Your task to perform on an android device: Add "lg ultragear" to the cart on amazon.com Image 0: 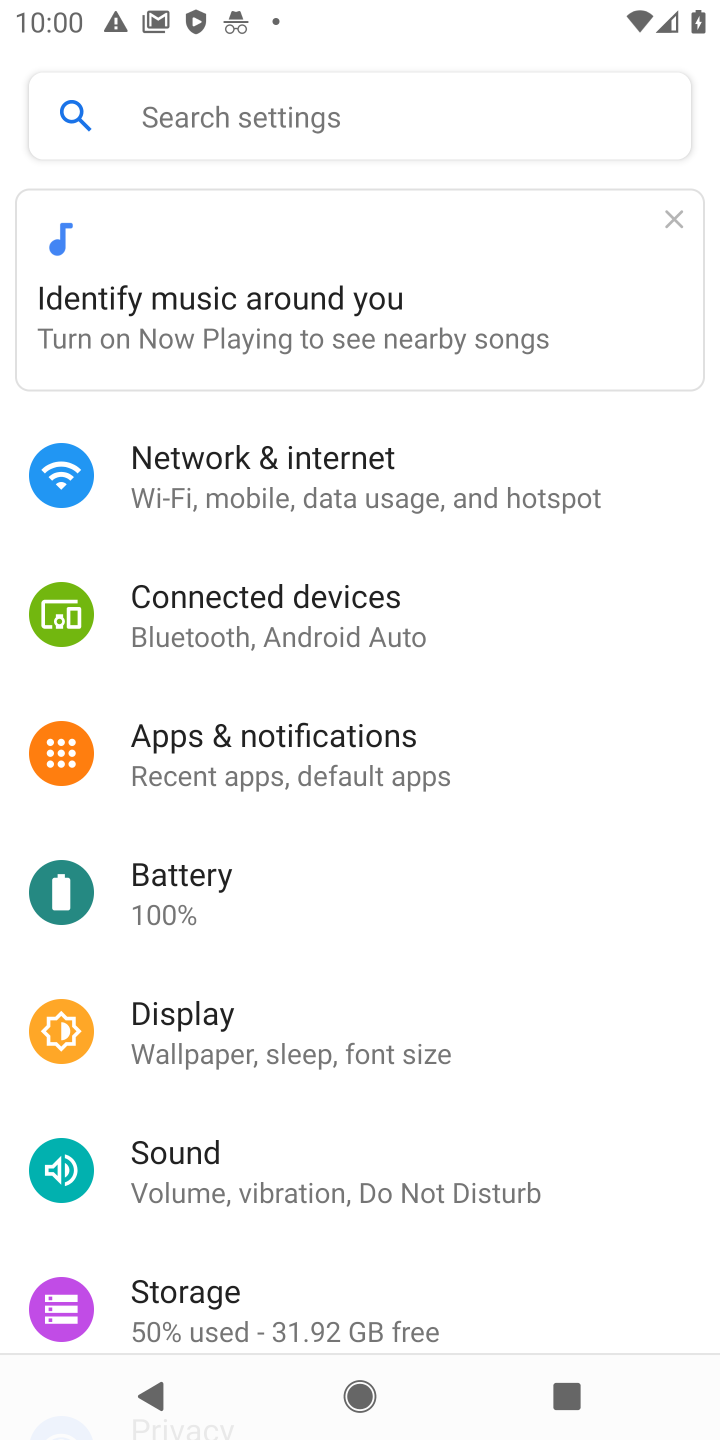
Step 0: press home button
Your task to perform on an android device: Add "lg ultragear" to the cart on amazon.com Image 1: 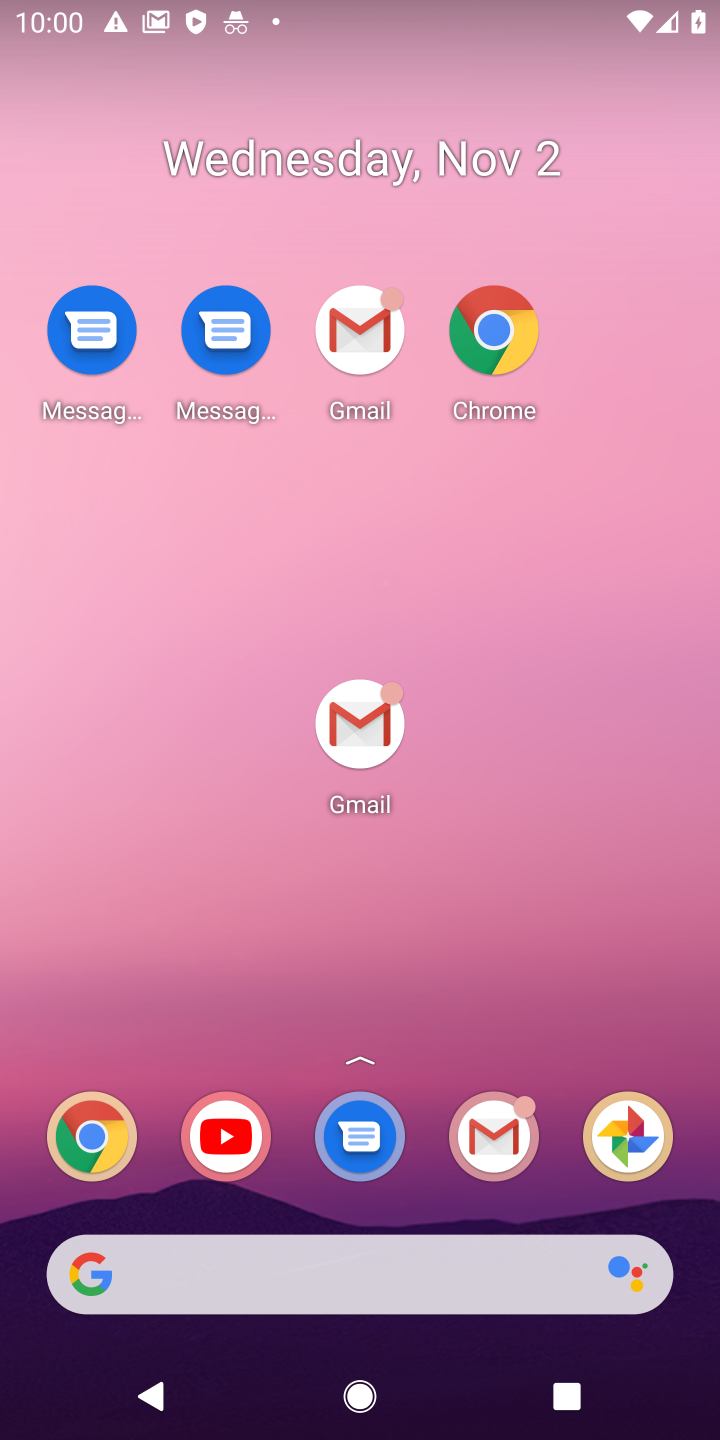
Step 1: drag from (361, 752) to (387, 381)
Your task to perform on an android device: Add "lg ultragear" to the cart on amazon.com Image 2: 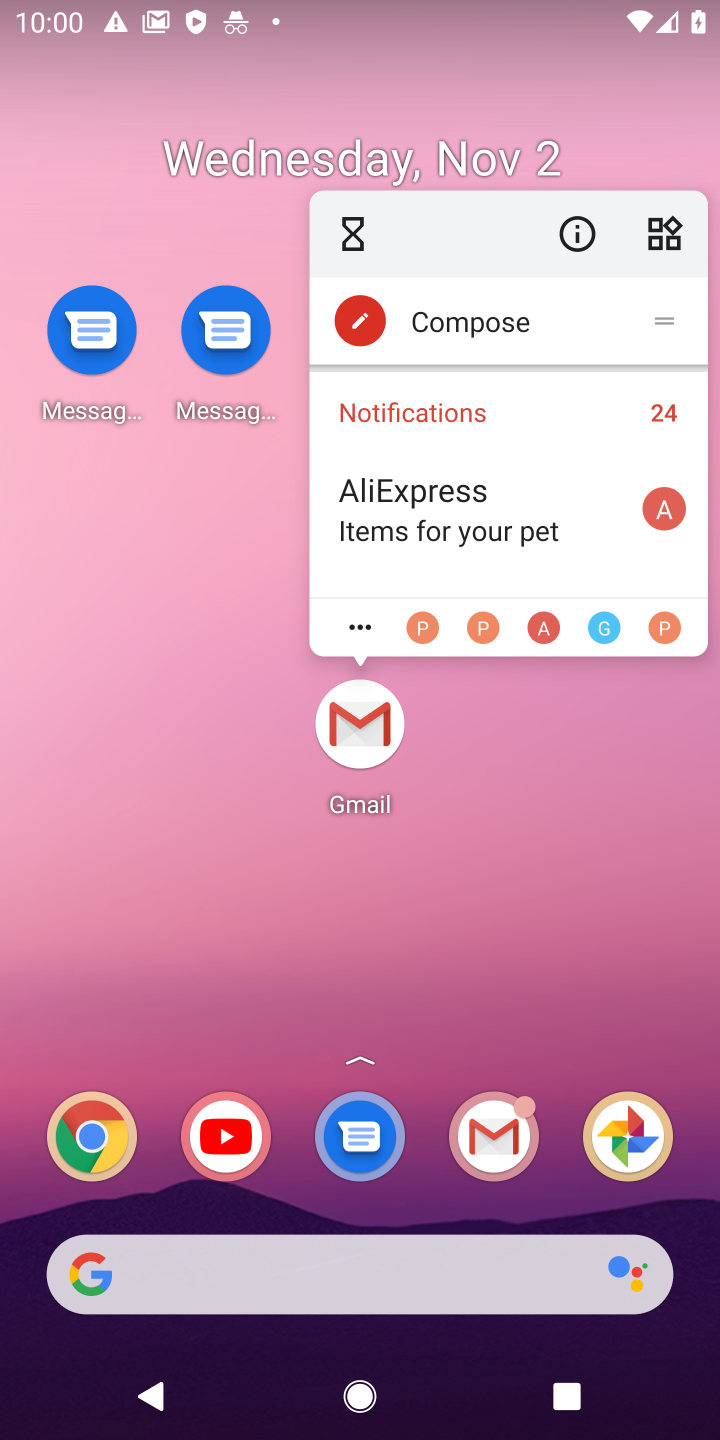
Step 2: click (82, 640)
Your task to perform on an android device: Add "lg ultragear" to the cart on amazon.com Image 3: 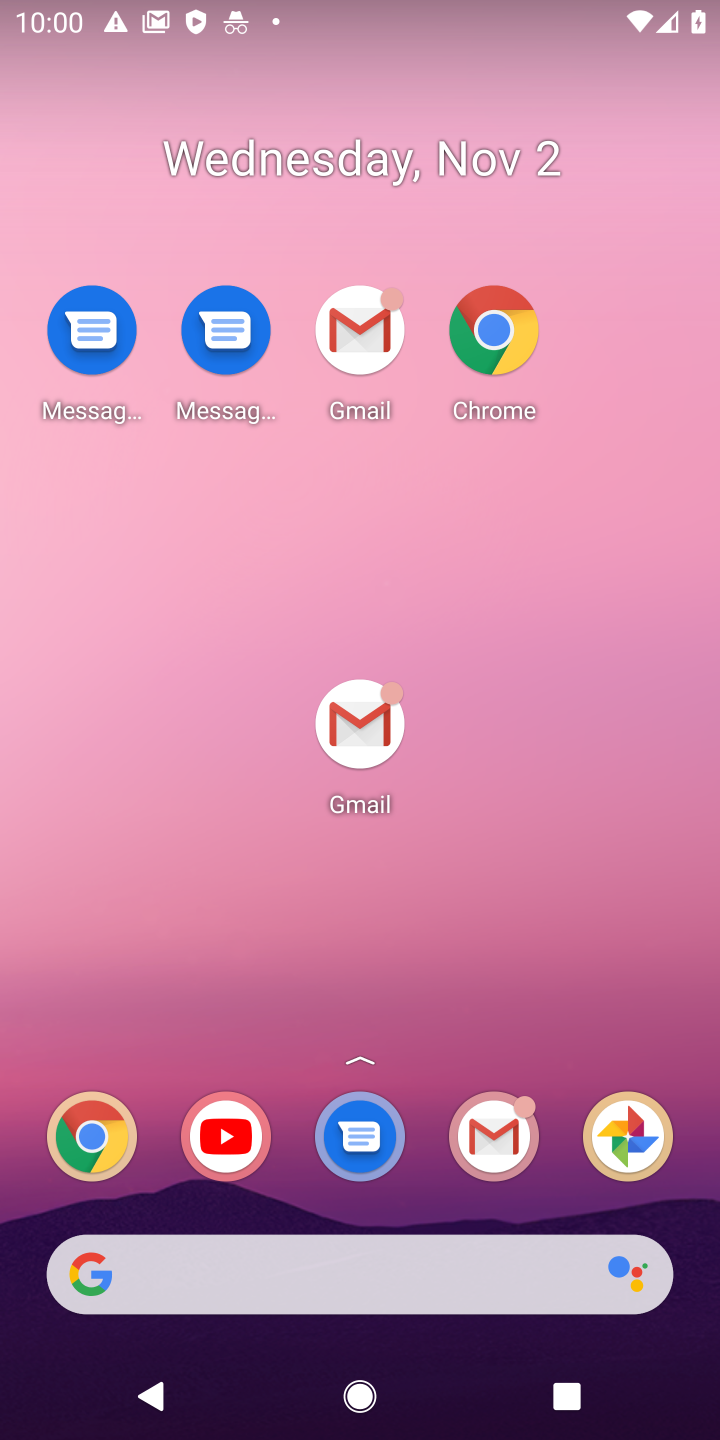
Step 3: drag from (420, 1329) to (397, 790)
Your task to perform on an android device: Add "lg ultragear" to the cart on amazon.com Image 4: 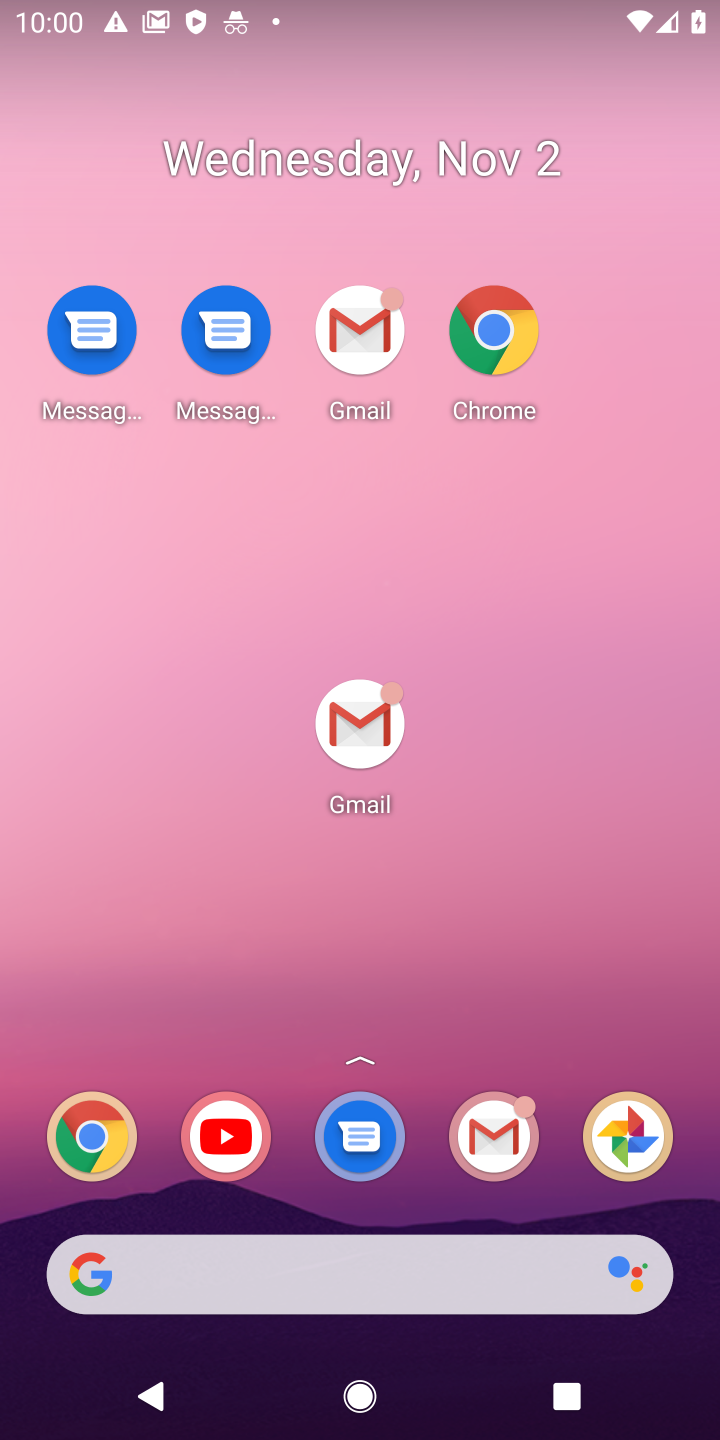
Step 4: drag from (443, 1074) to (420, 243)
Your task to perform on an android device: Add "lg ultragear" to the cart on amazon.com Image 5: 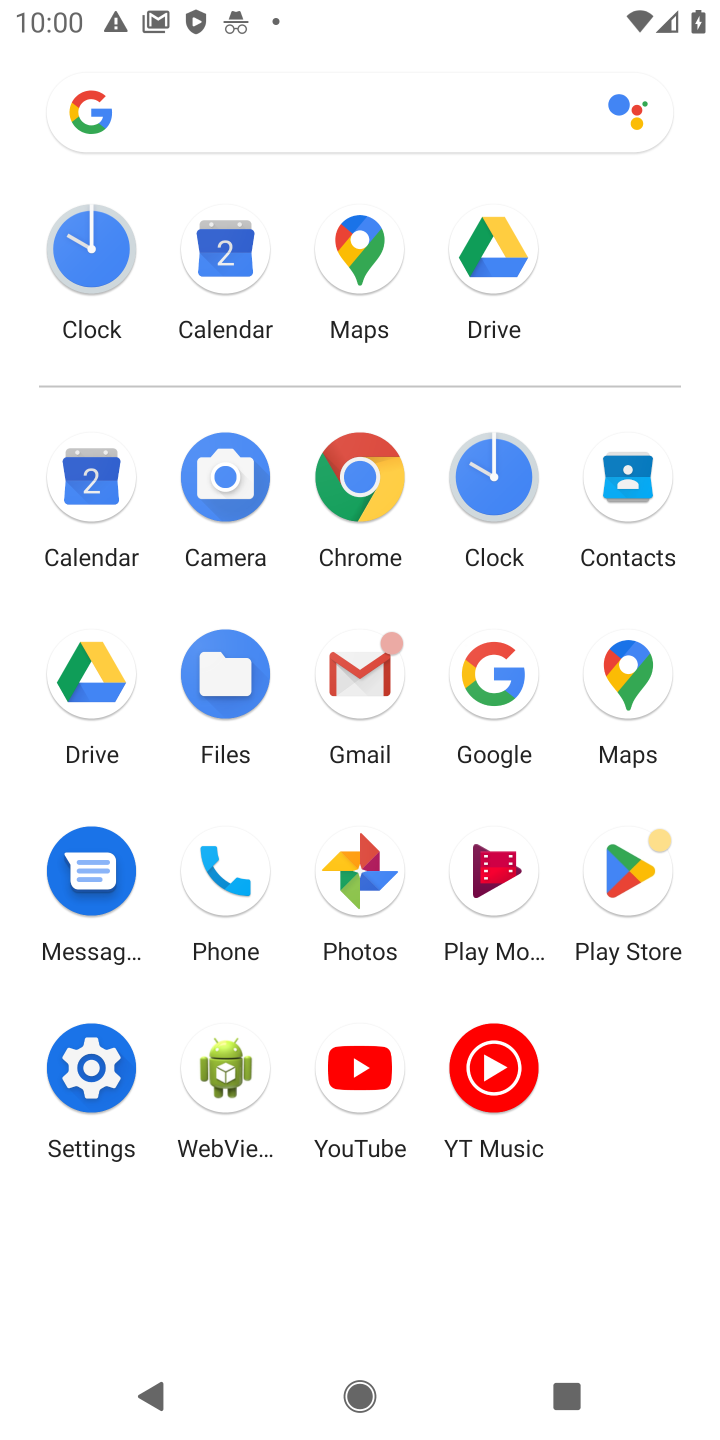
Step 5: click (481, 665)
Your task to perform on an android device: Add "lg ultragear" to the cart on amazon.com Image 6: 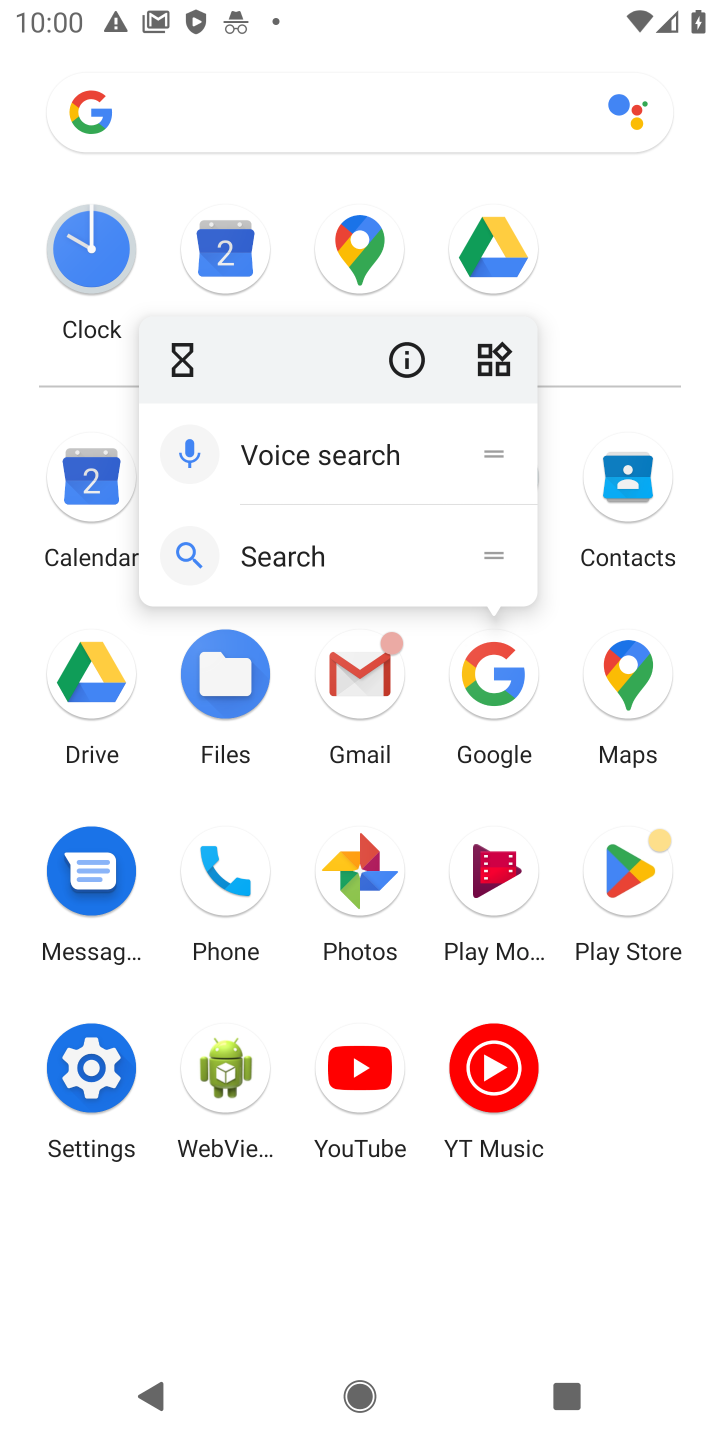
Step 6: click (481, 665)
Your task to perform on an android device: Add "lg ultragear" to the cart on amazon.com Image 7: 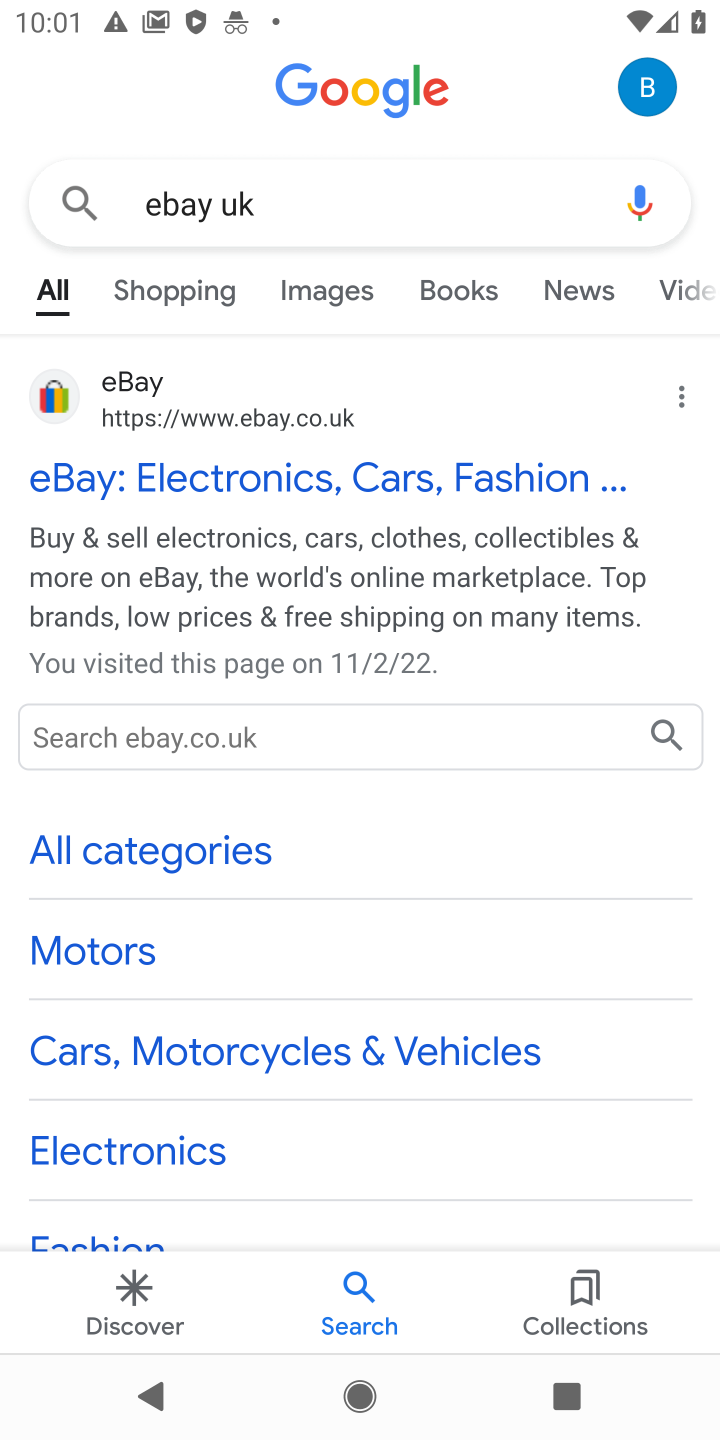
Step 7: click (304, 214)
Your task to perform on an android device: Add "lg ultragear" to the cart on amazon.com Image 8: 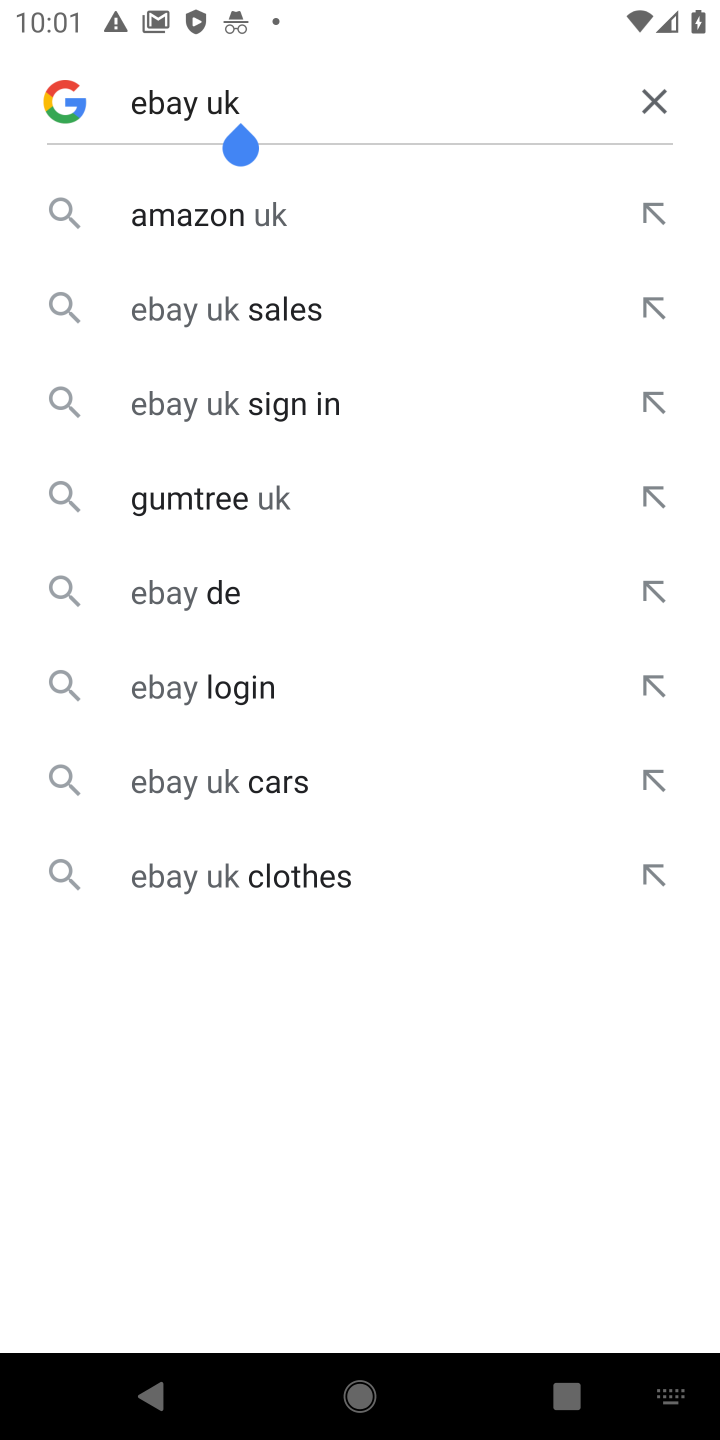
Step 8: click (664, 89)
Your task to perform on an android device: Add "lg ultragear" to the cart on amazon.com Image 9: 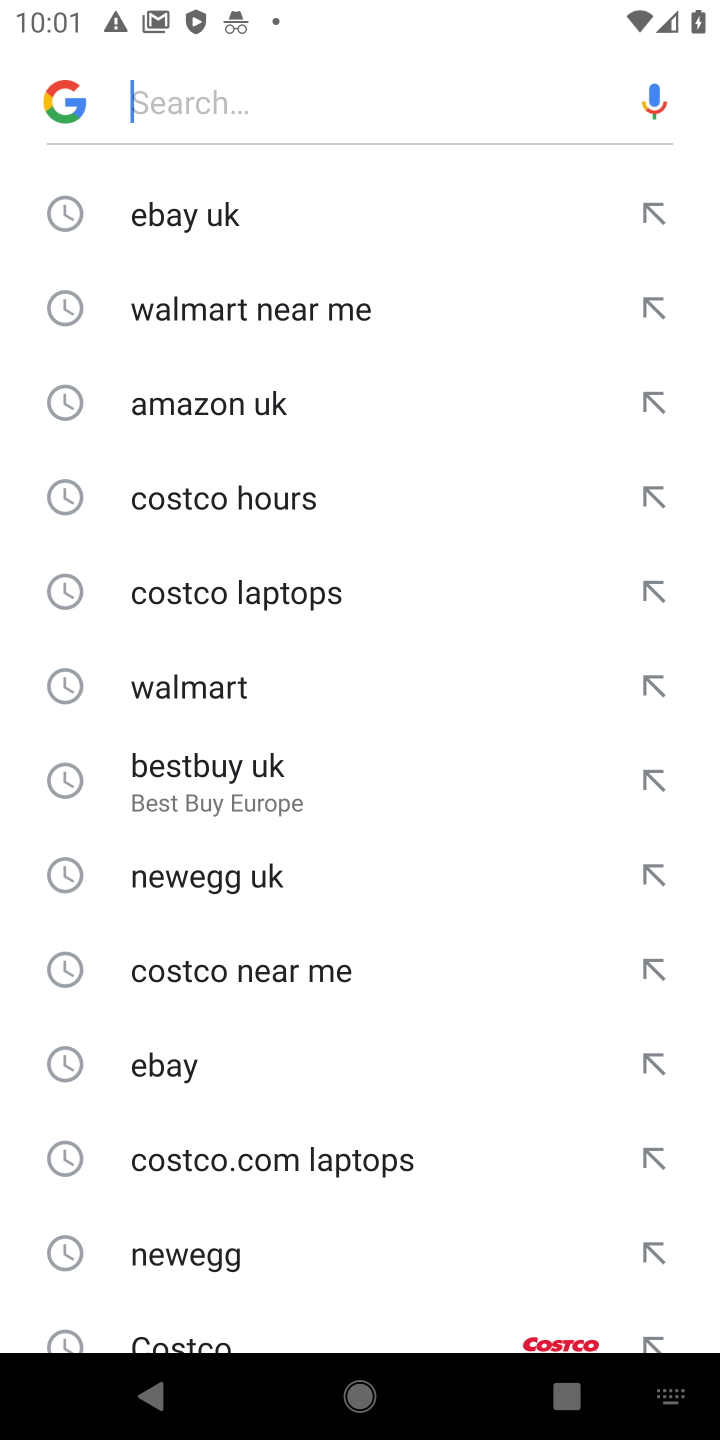
Step 9: click (397, 76)
Your task to perform on an android device: Add "lg ultragear" to the cart on amazon.com Image 10: 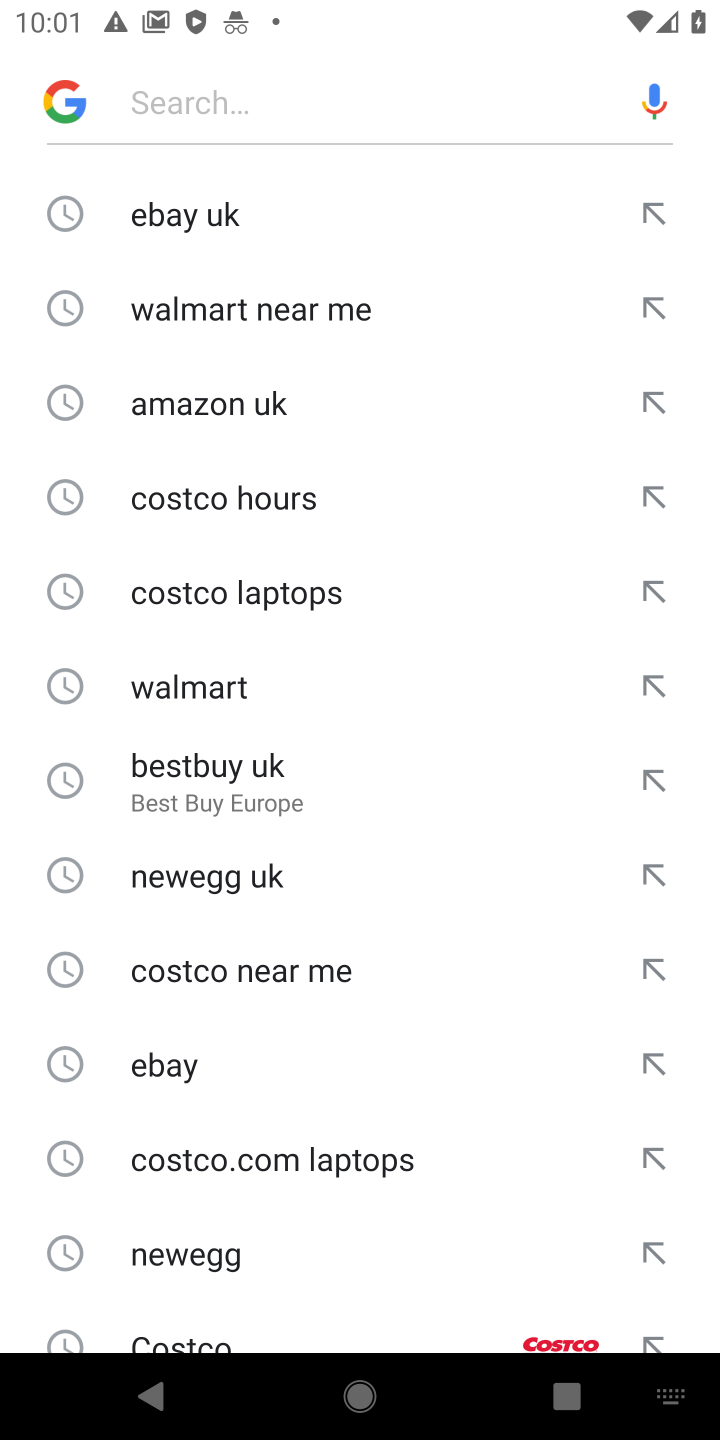
Step 10: type "amazon "
Your task to perform on an android device: Add "lg ultragear" to the cart on amazon.com Image 11: 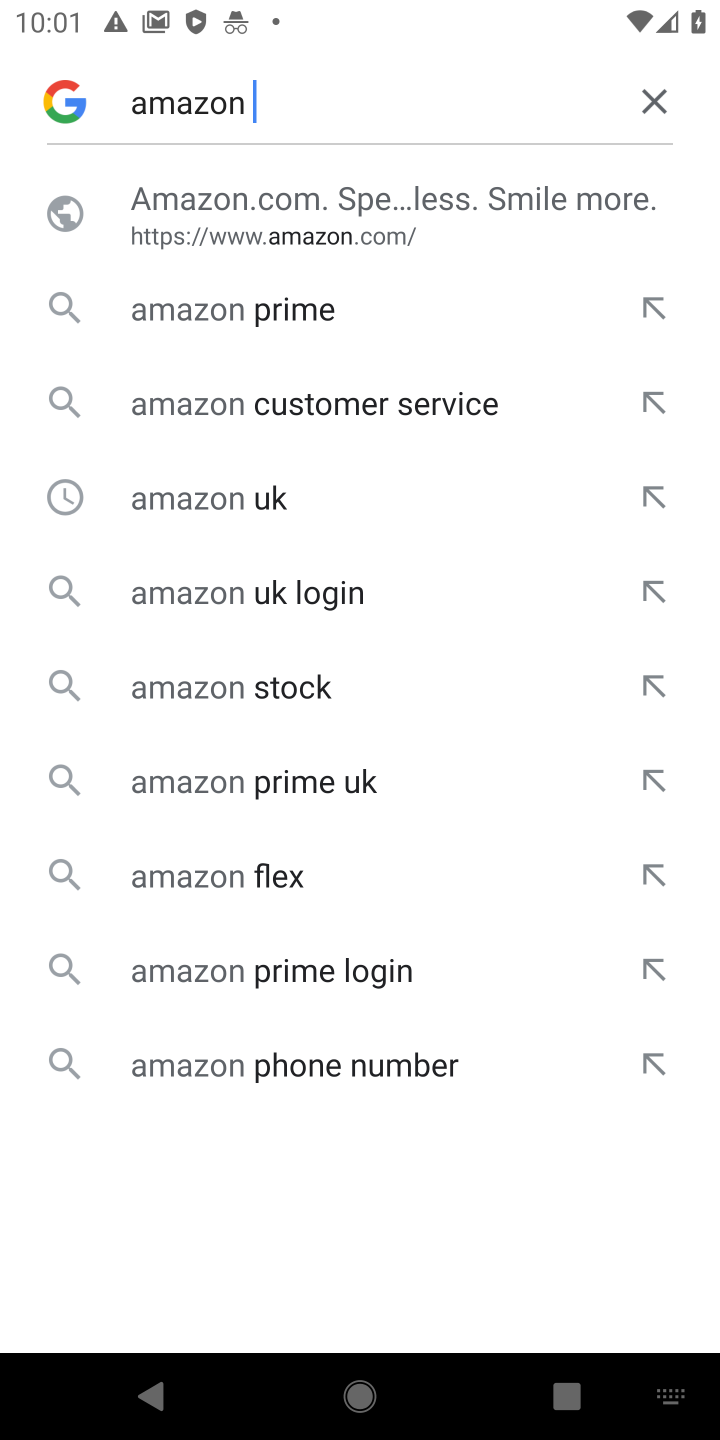
Step 11: click (254, 229)
Your task to perform on an android device: Add "lg ultragear" to the cart on amazon.com Image 12: 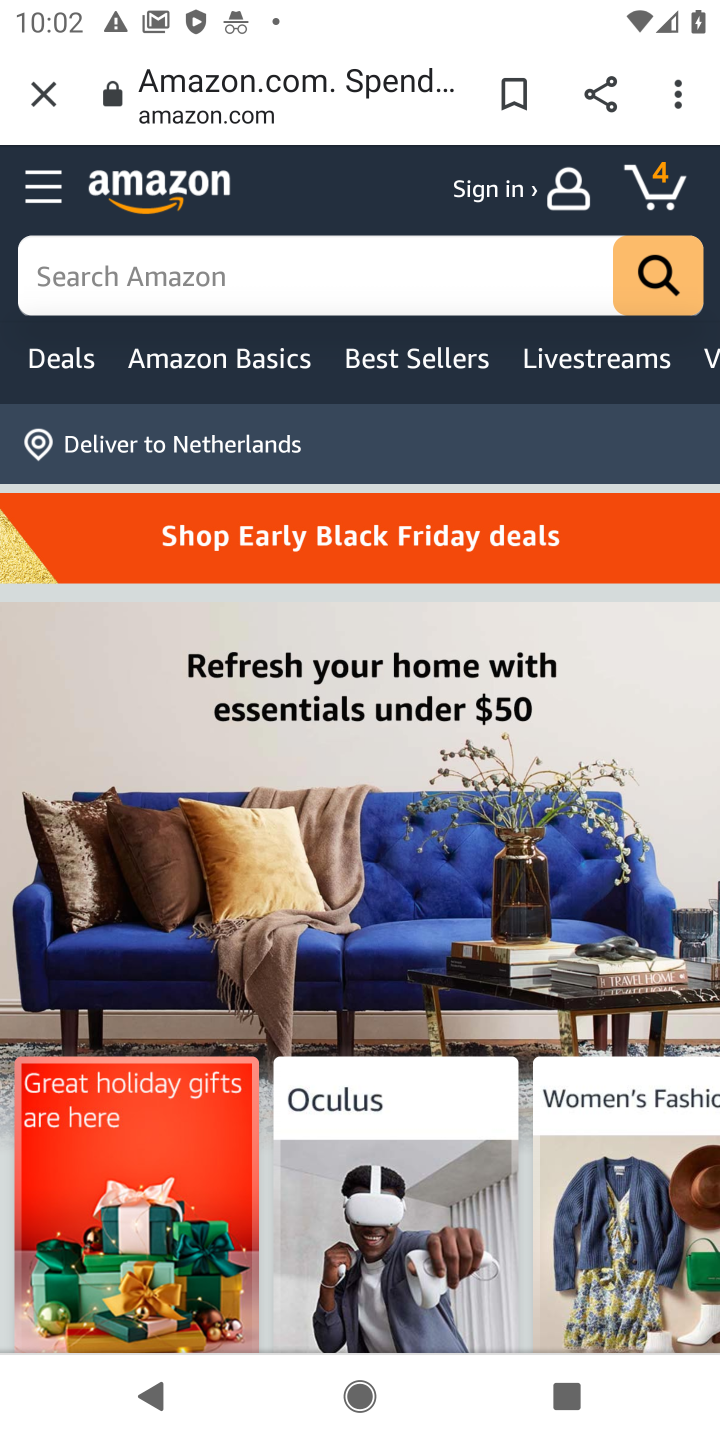
Step 12: click (235, 273)
Your task to perform on an android device: Add "lg ultragear" to the cart on amazon.com Image 13: 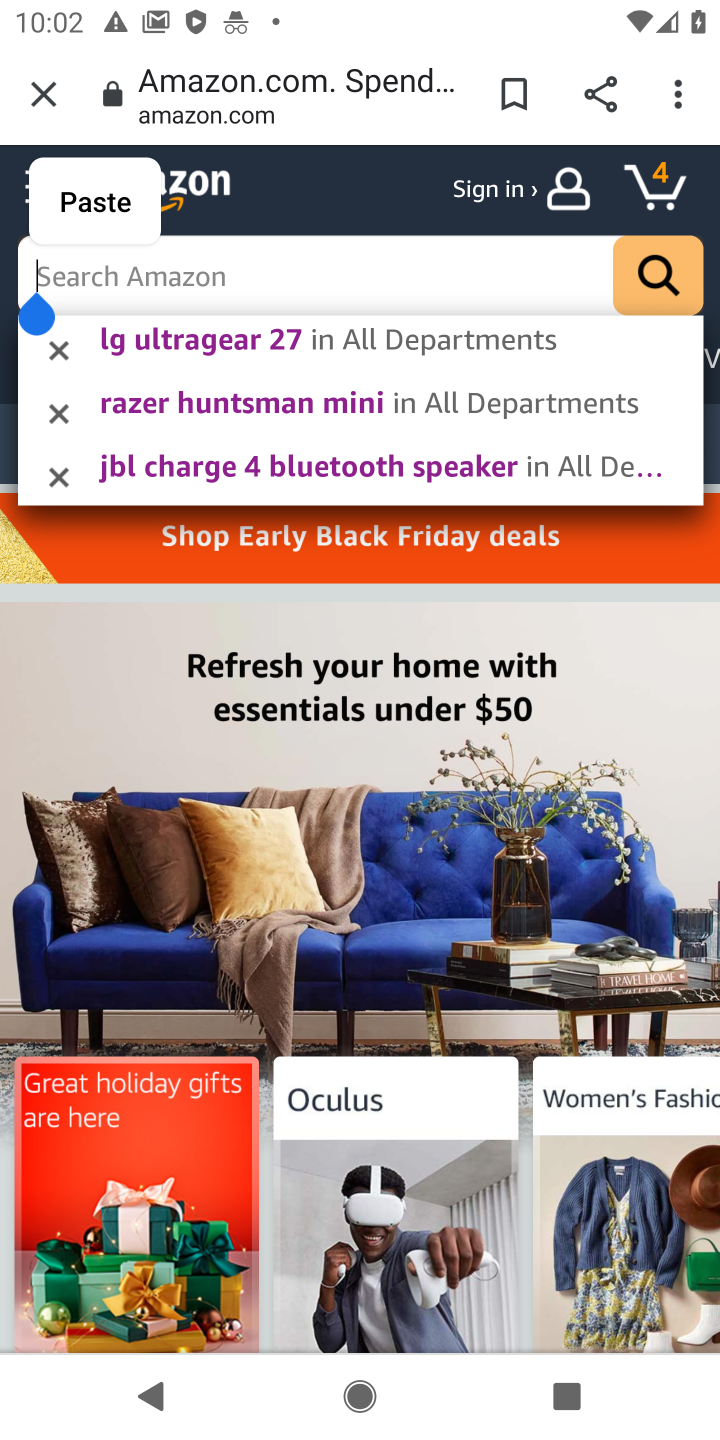
Step 13: type "lg ultragear "
Your task to perform on an android device: Add "lg ultragear" to the cart on amazon.com Image 14: 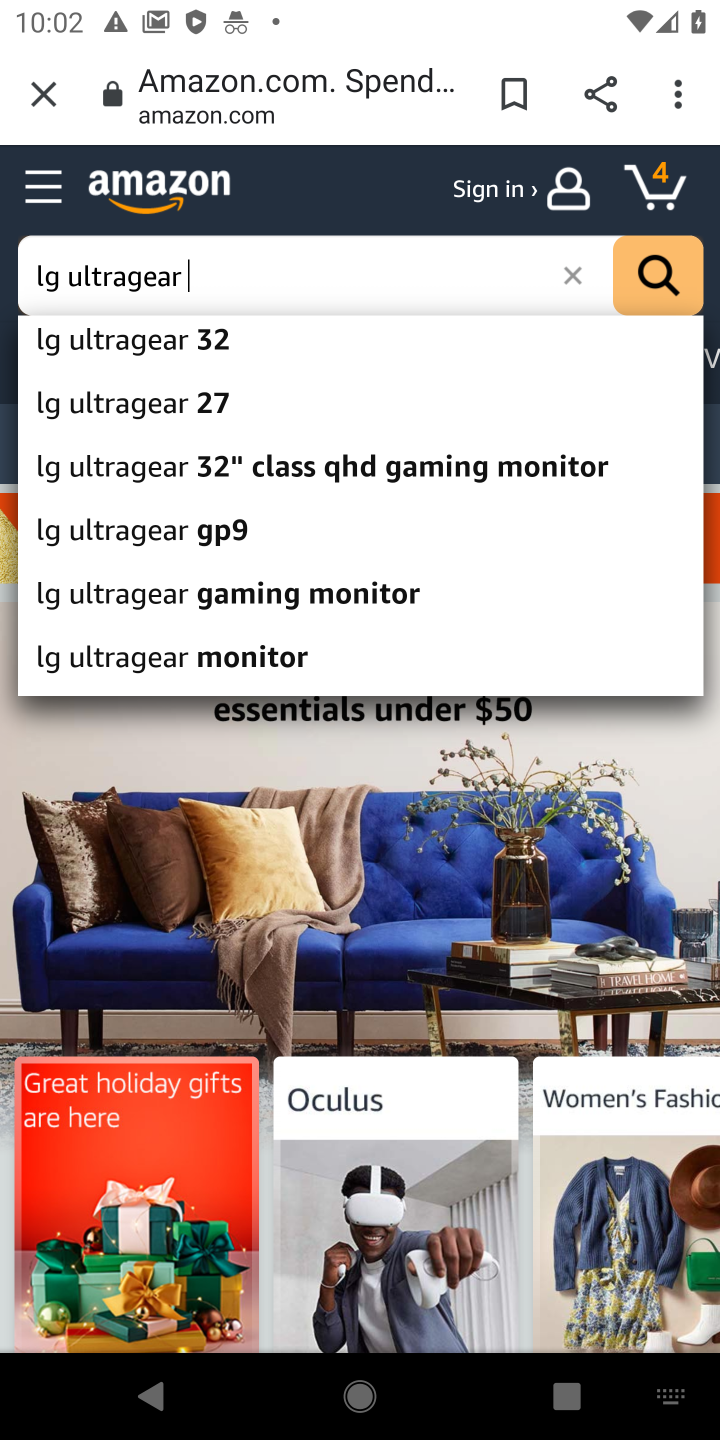
Step 14: click (227, 354)
Your task to perform on an android device: Add "lg ultragear" to the cart on amazon.com Image 15: 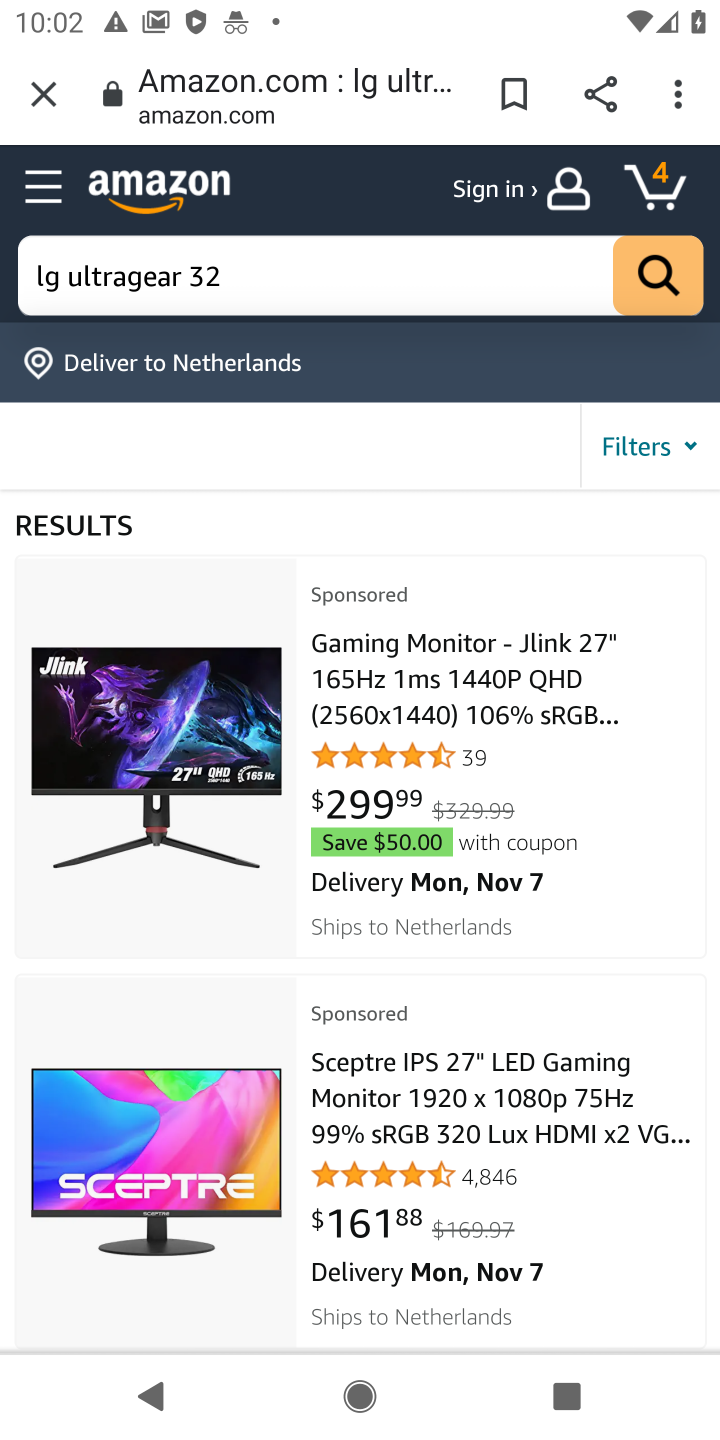
Step 15: click (489, 695)
Your task to perform on an android device: Add "lg ultragear" to the cart on amazon.com Image 16: 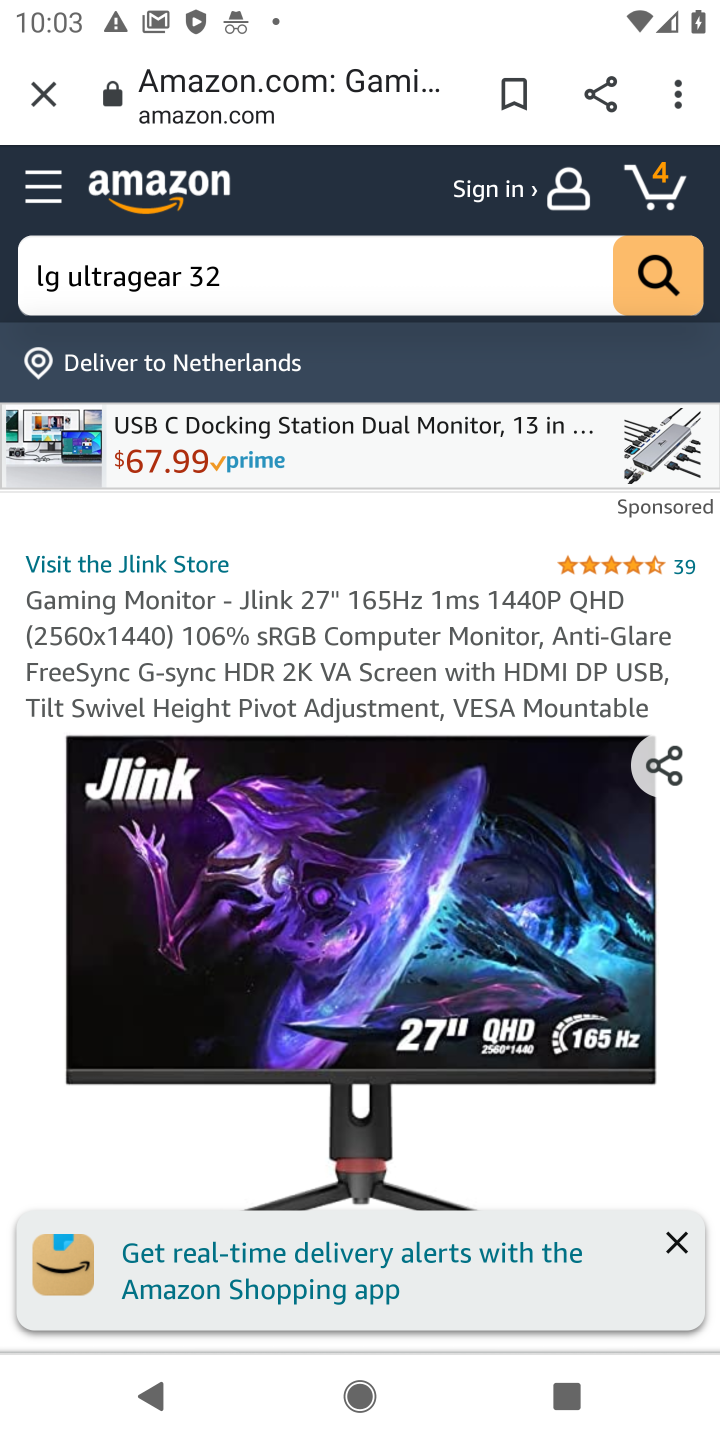
Step 16: drag from (413, 1053) to (489, 432)
Your task to perform on an android device: Add "lg ultragear" to the cart on amazon.com Image 17: 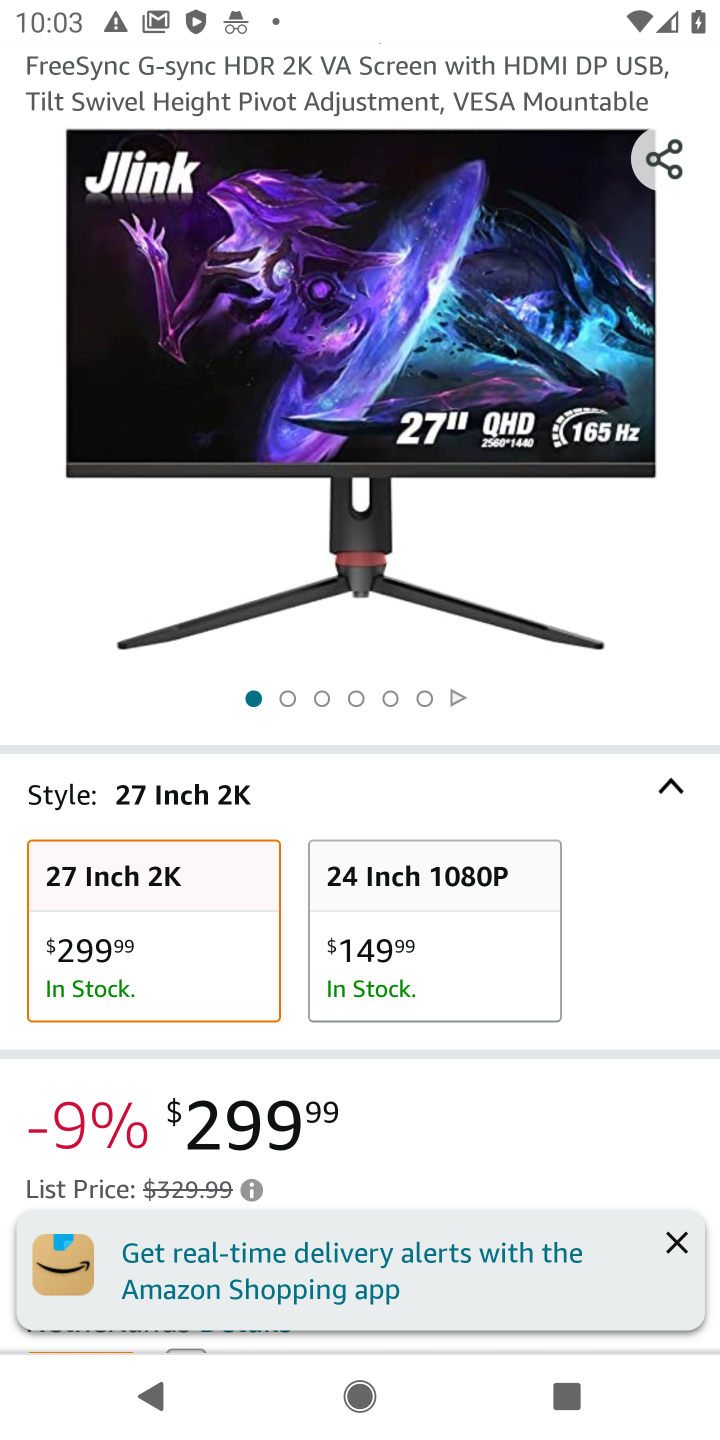
Step 17: drag from (436, 1143) to (457, 423)
Your task to perform on an android device: Add "lg ultragear" to the cart on amazon.com Image 18: 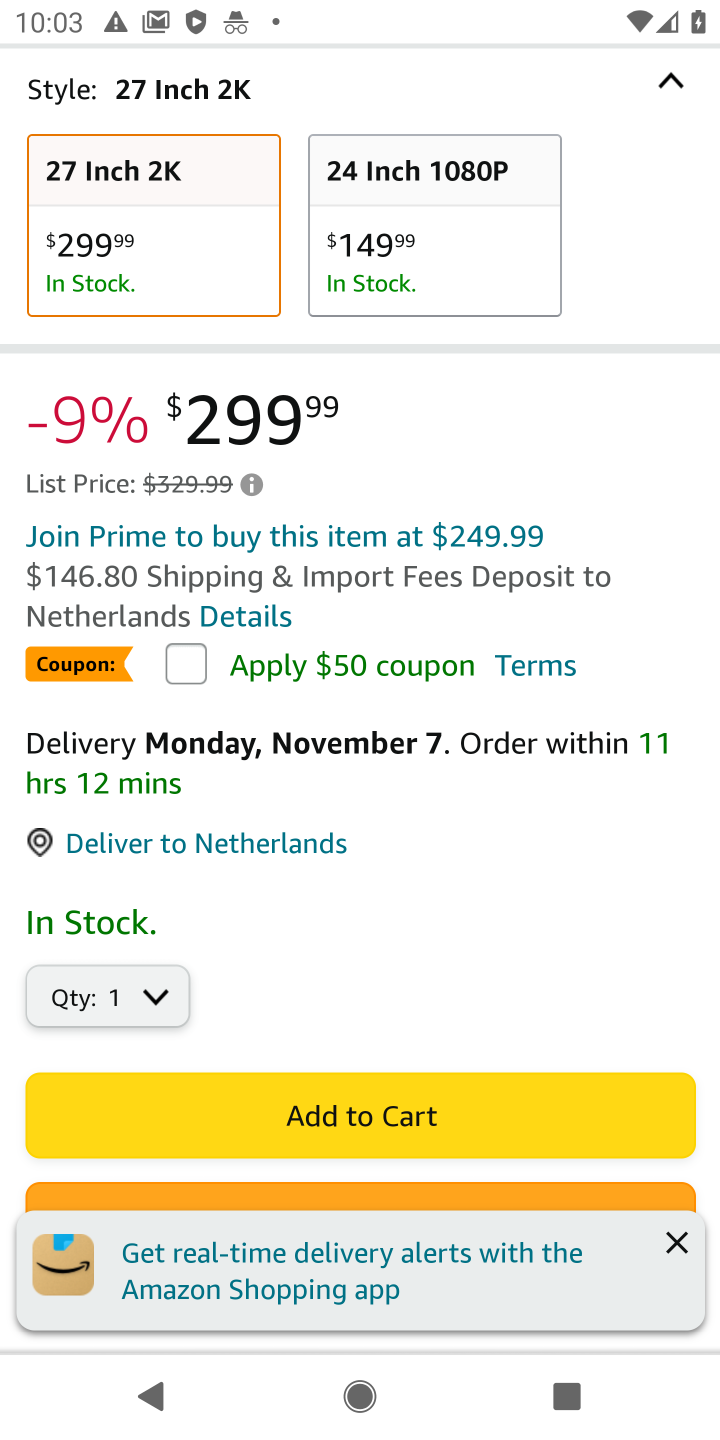
Step 18: click (382, 1091)
Your task to perform on an android device: Add "lg ultragear" to the cart on amazon.com Image 19: 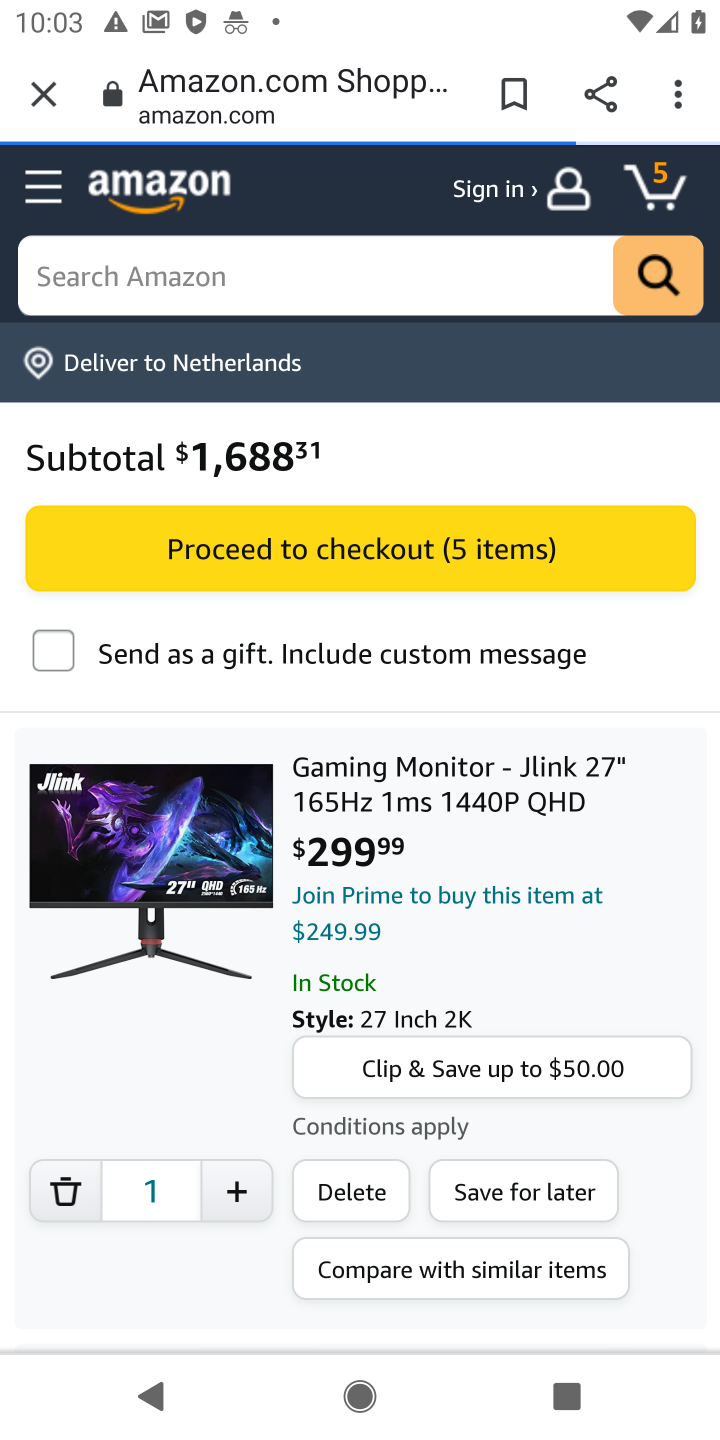
Step 19: task complete